Your task to perform on an android device: check data usage Image 0: 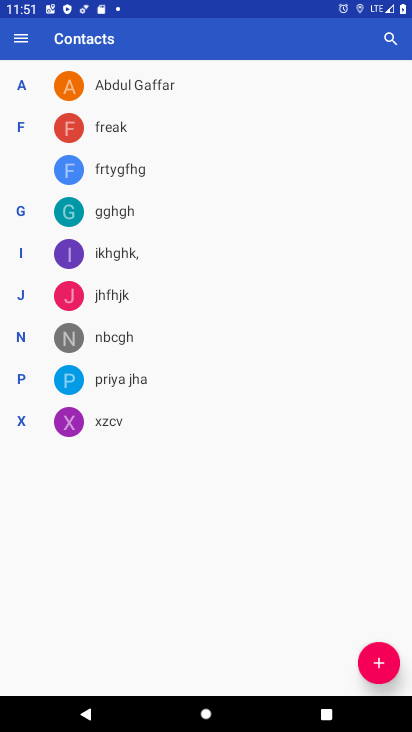
Step 0: press home button
Your task to perform on an android device: check data usage Image 1: 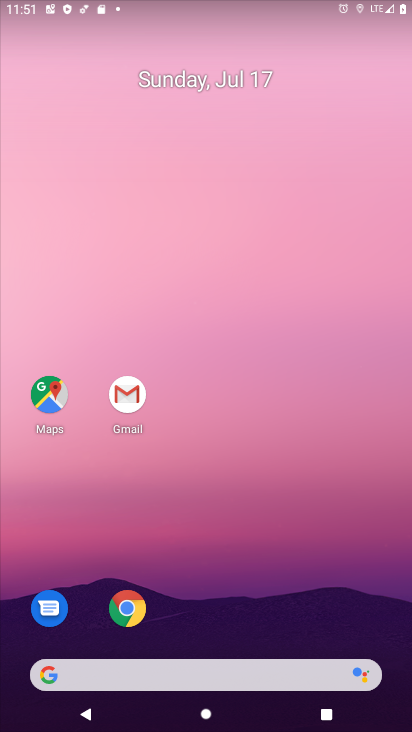
Step 1: drag from (213, 664) to (164, 18)
Your task to perform on an android device: check data usage Image 2: 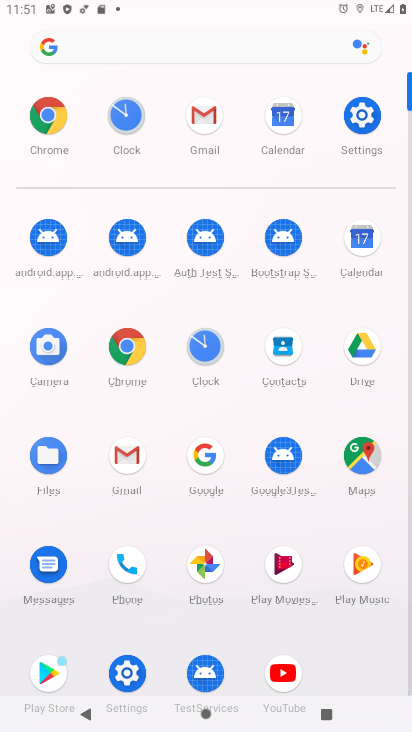
Step 2: click (362, 115)
Your task to perform on an android device: check data usage Image 3: 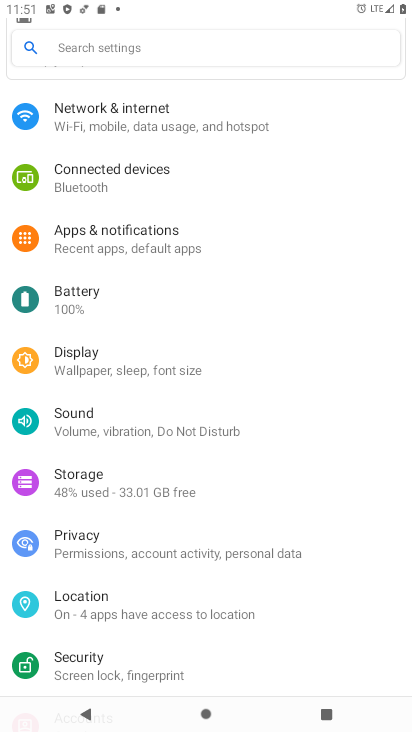
Step 3: drag from (186, 208) to (245, 612)
Your task to perform on an android device: check data usage Image 4: 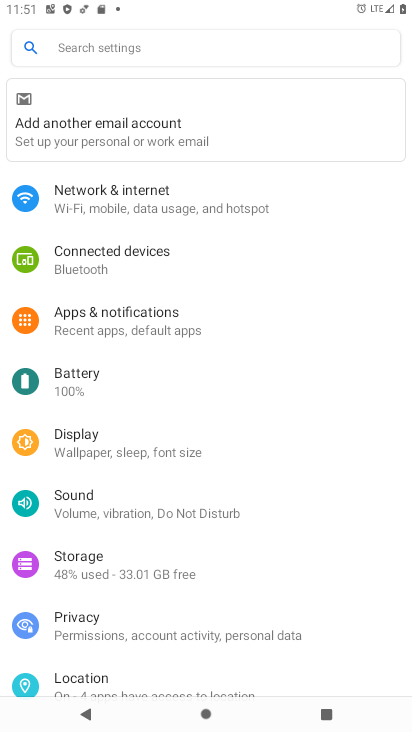
Step 4: click (120, 199)
Your task to perform on an android device: check data usage Image 5: 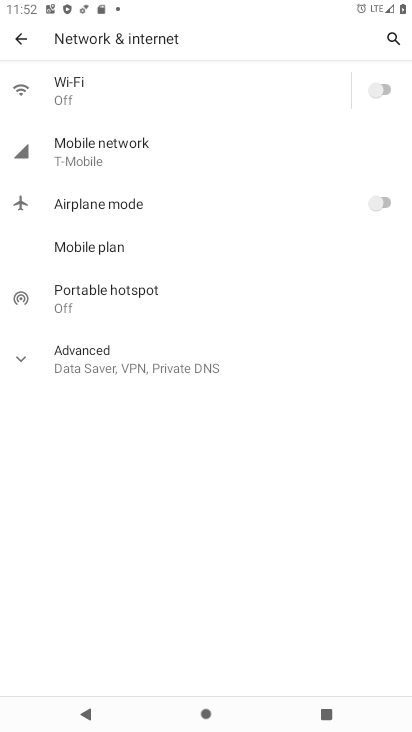
Step 5: click (100, 142)
Your task to perform on an android device: check data usage Image 6: 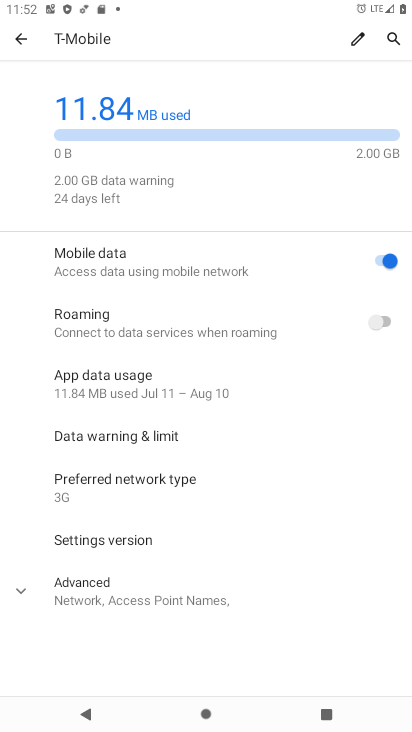
Step 6: task complete